Your task to perform on an android device: Go to Android settings Image 0: 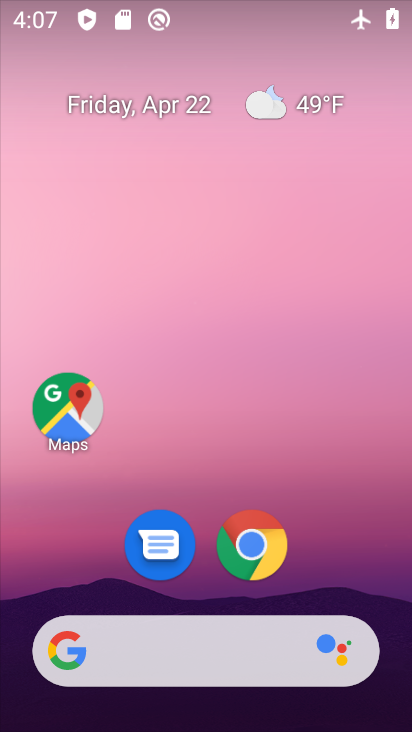
Step 0: drag from (346, 534) to (346, 2)
Your task to perform on an android device: Go to Android settings Image 1: 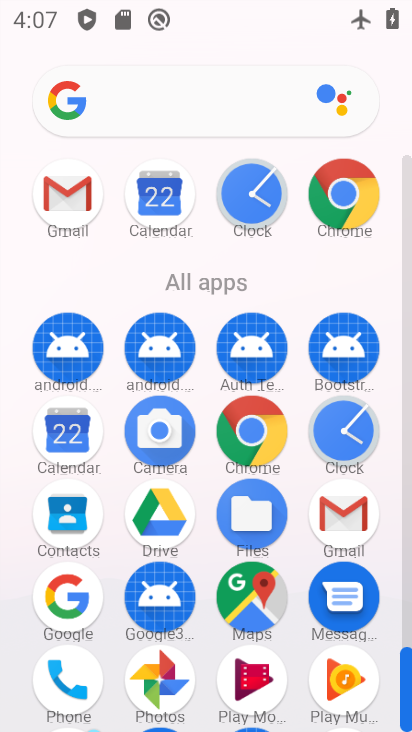
Step 1: drag from (410, 420) to (411, 290)
Your task to perform on an android device: Go to Android settings Image 2: 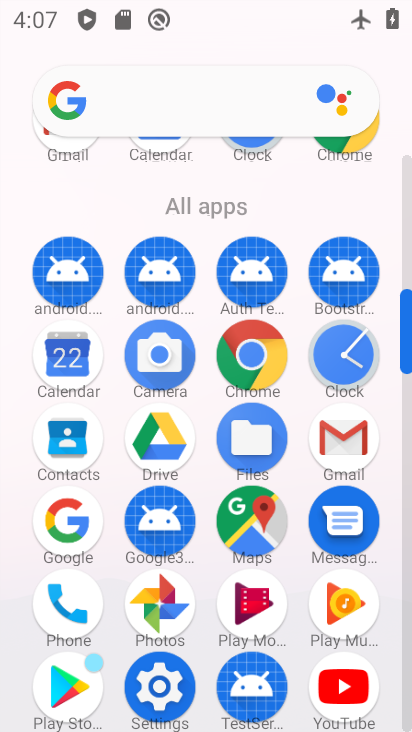
Step 2: click (162, 704)
Your task to perform on an android device: Go to Android settings Image 3: 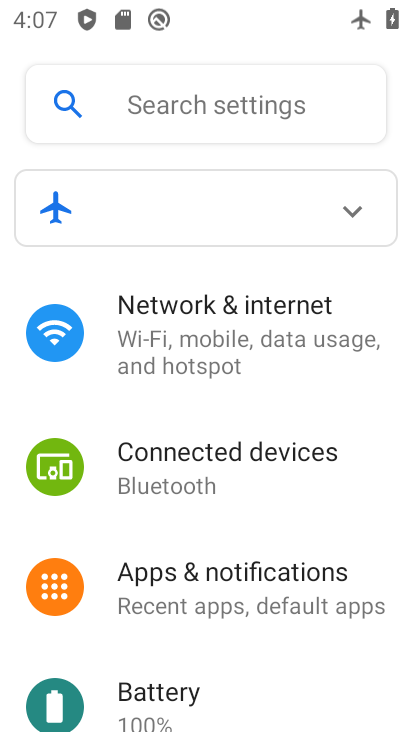
Step 3: drag from (270, 515) to (289, 148)
Your task to perform on an android device: Go to Android settings Image 4: 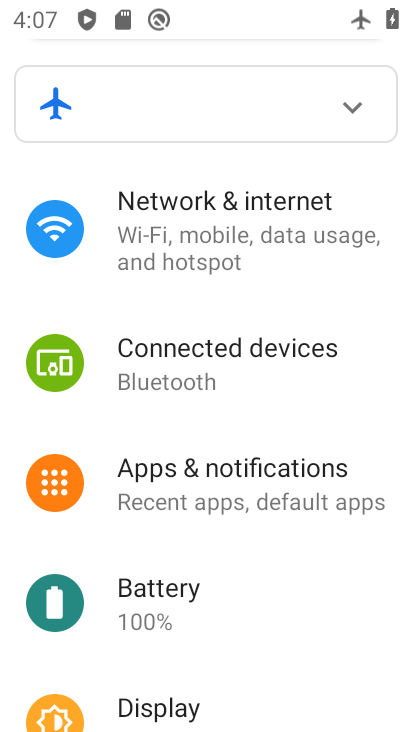
Step 4: drag from (257, 596) to (367, 90)
Your task to perform on an android device: Go to Android settings Image 5: 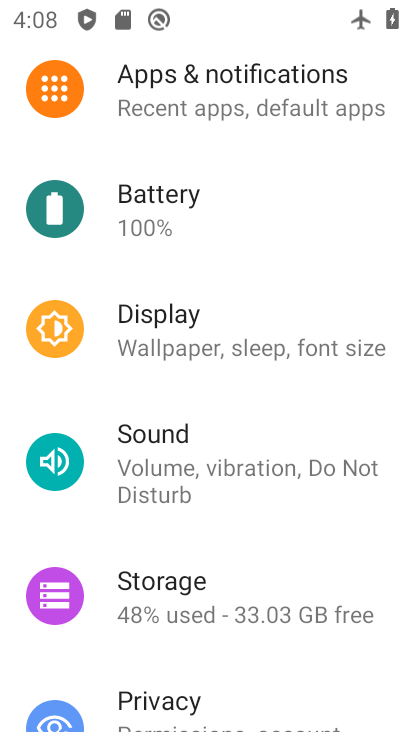
Step 5: drag from (238, 574) to (350, 128)
Your task to perform on an android device: Go to Android settings Image 6: 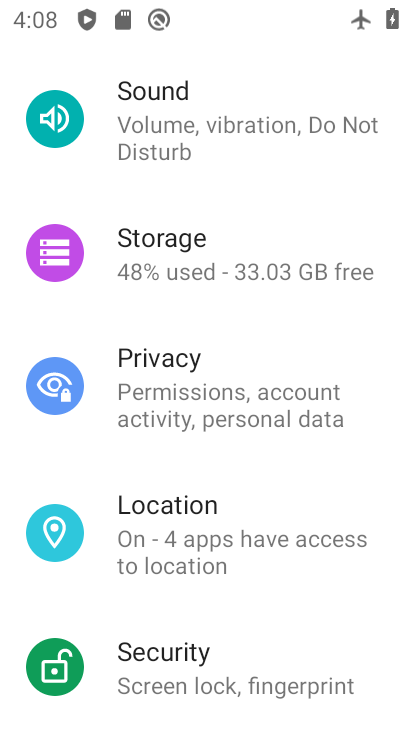
Step 6: drag from (253, 566) to (277, 86)
Your task to perform on an android device: Go to Android settings Image 7: 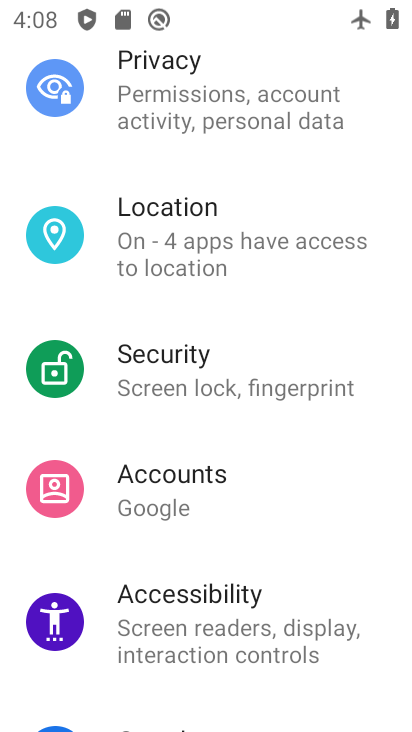
Step 7: drag from (253, 628) to (274, 161)
Your task to perform on an android device: Go to Android settings Image 8: 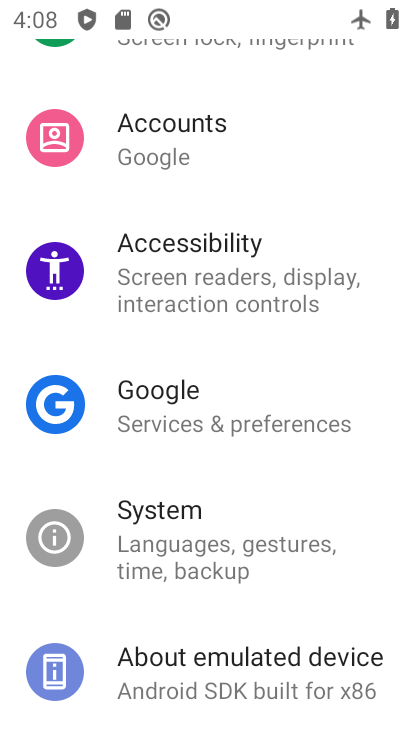
Step 8: drag from (260, 626) to (348, 121)
Your task to perform on an android device: Go to Android settings Image 9: 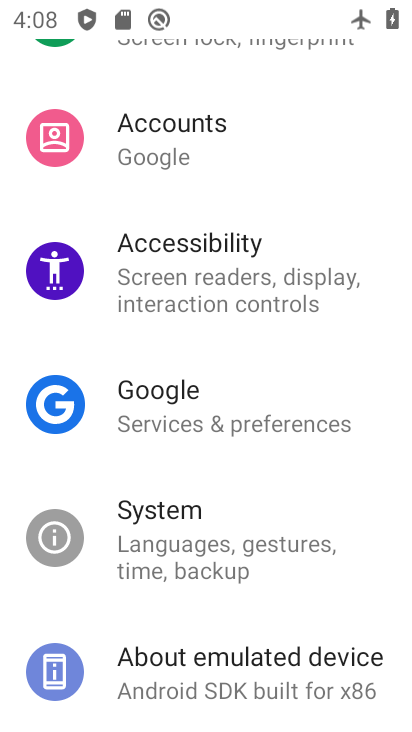
Step 9: click (213, 684)
Your task to perform on an android device: Go to Android settings Image 10: 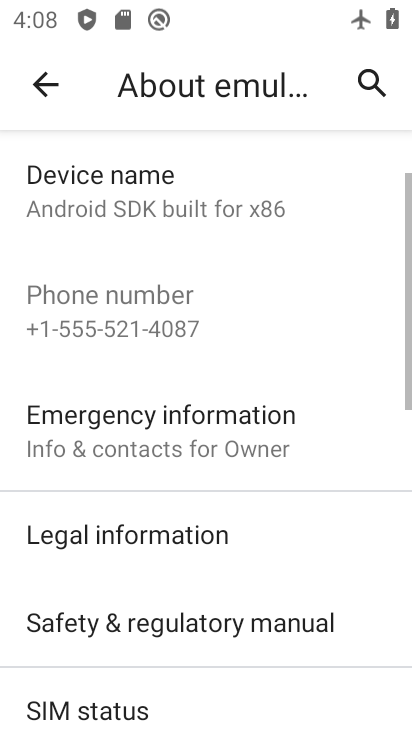
Step 10: drag from (214, 640) to (308, 190)
Your task to perform on an android device: Go to Android settings Image 11: 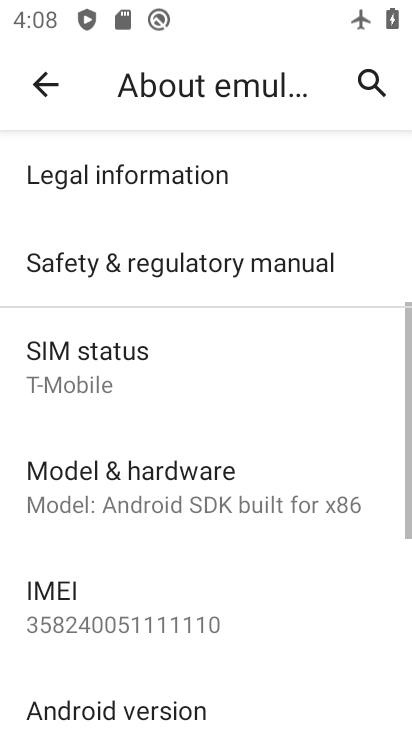
Step 11: drag from (205, 591) to (302, 168)
Your task to perform on an android device: Go to Android settings Image 12: 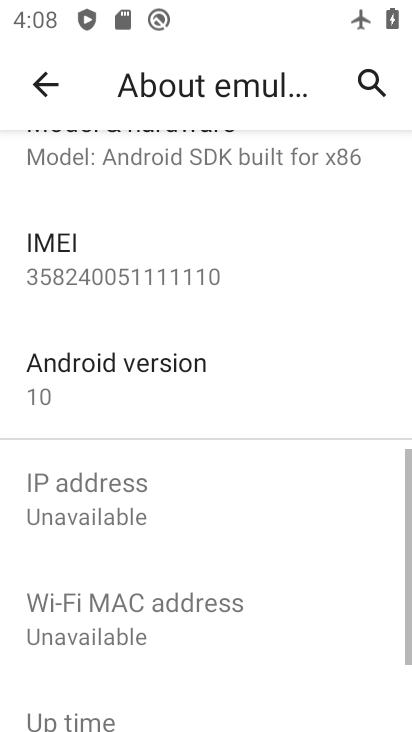
Step 12: click (109, 357)
Your task to perform on an android device: Go to Android settings Image 13: 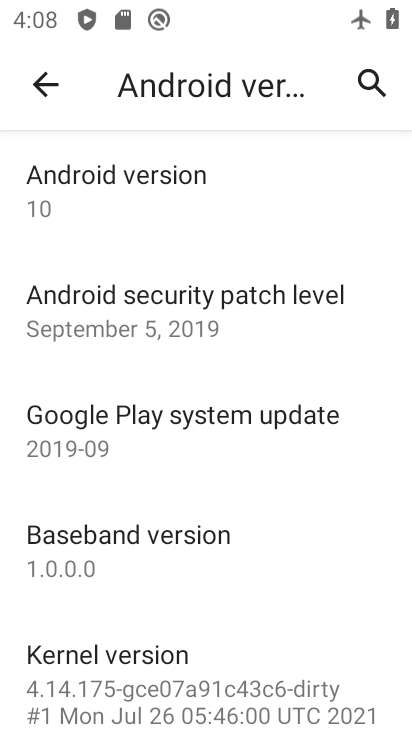
Step 13: task complete